Your task to perform on an android device: turn off wifi Image 0: 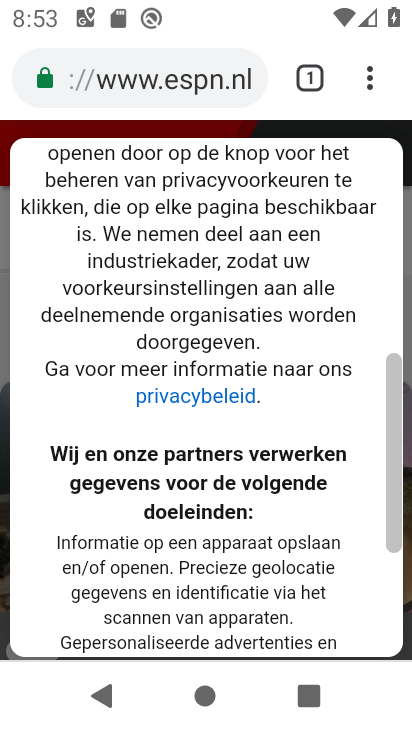
Step 0: press home button
Your task to perform on an android device: turn off wifi Image 1: 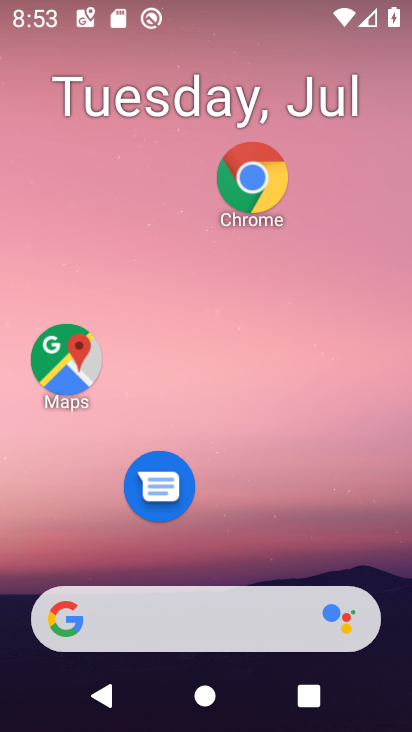
Step 1: drag from (272, 506) to (321, 80)
Your task to perform on an android device: turn off wifi Image 2: 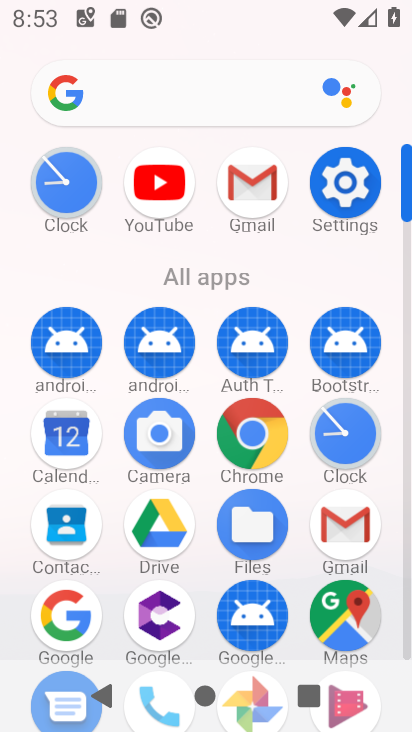
Step 2: click (353, 200)
Your task to perform on an android device: turn off wifi Image 3: 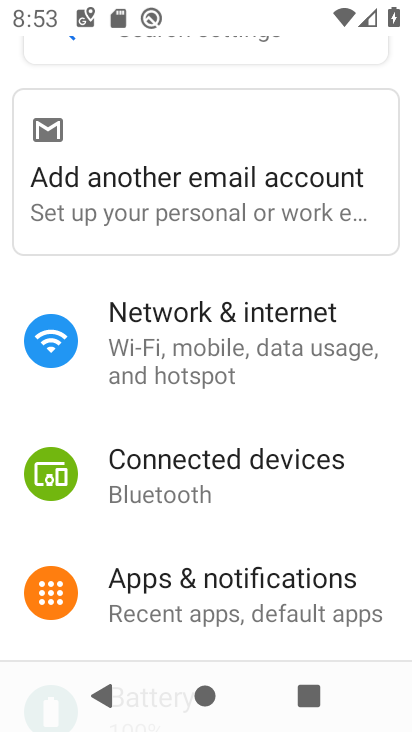
Step 3: click (268, 302)
Your task to perform on an android device: turn off wifi Image 4: 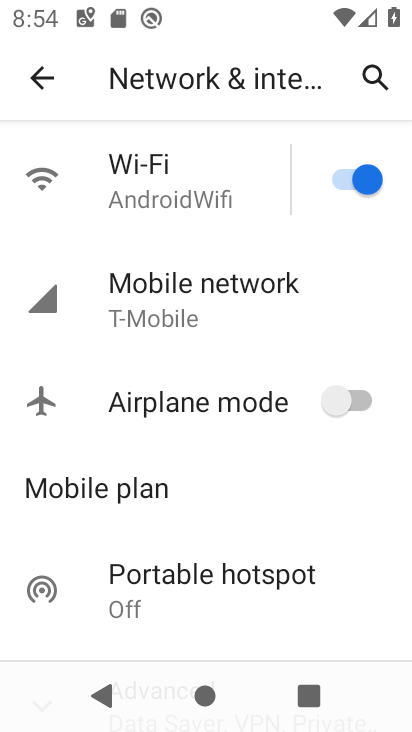
Step 4: click (342, 202)
Your task to perform on an android device: turn off wifi Image 5: 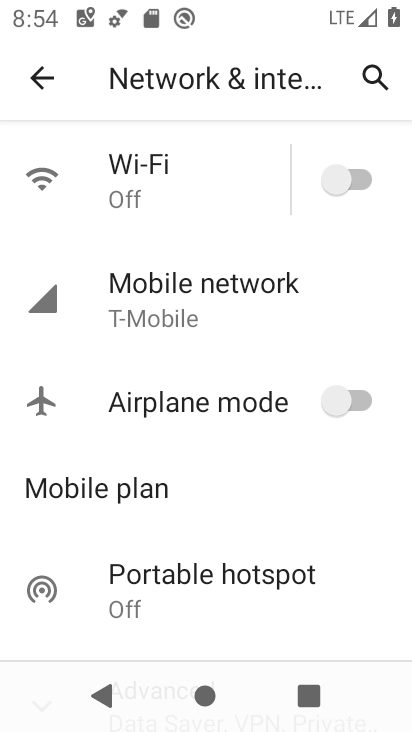
Step 5: task complete